Your task to perform on an android device: change your default location settings in chrome Image 0: 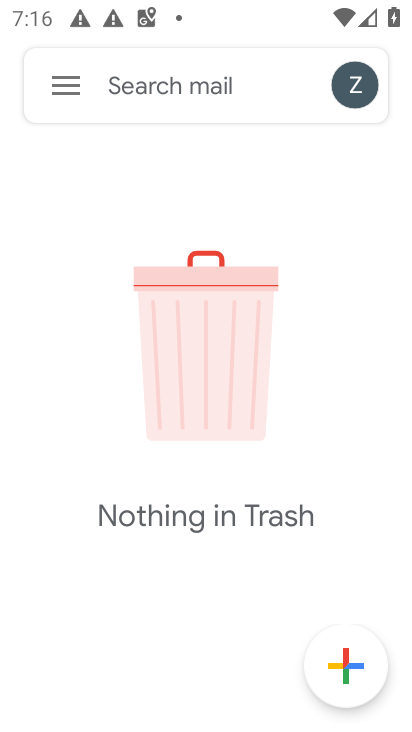
Step 0: press home button
Your task to perform on an android device: change your default location settings in chrome Image 1: 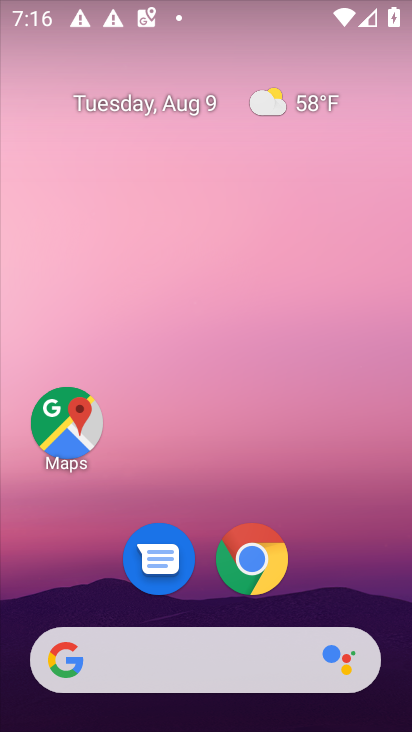
Step 1: click (249, 564)
Your task to perform on an android device: change your default location settings in chrome Image 2: 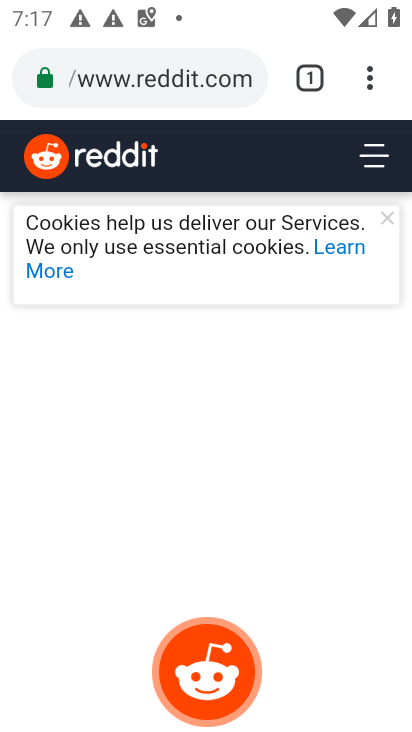
Step 2: click (370, 77)
Your task to perform on an android device: change your default location settings in chrome Image 3: 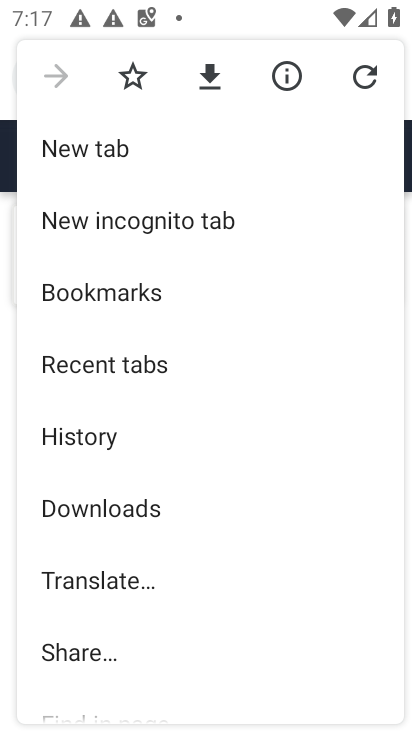
Step 3: drag from (136, 596) to (136, 254)
Your task to perform on an android device: change your default location settings in chrome Image 4: 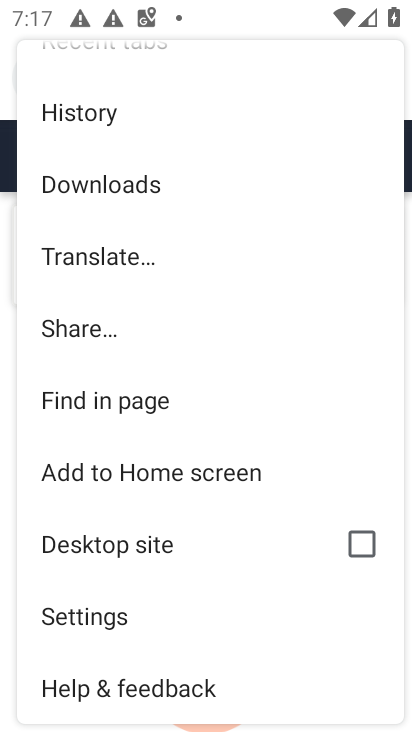
Step 4: click (82, 616)
Your task to perform on an android device: change your default location settings in chrome Image 5: 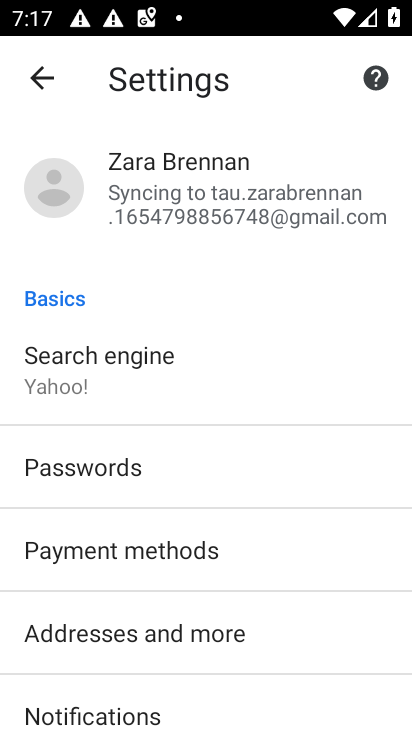
Step 5: drag from (165, 427) to (165, 165)
Your task to perform on an android device: change your default location settings in chrome Image 6: 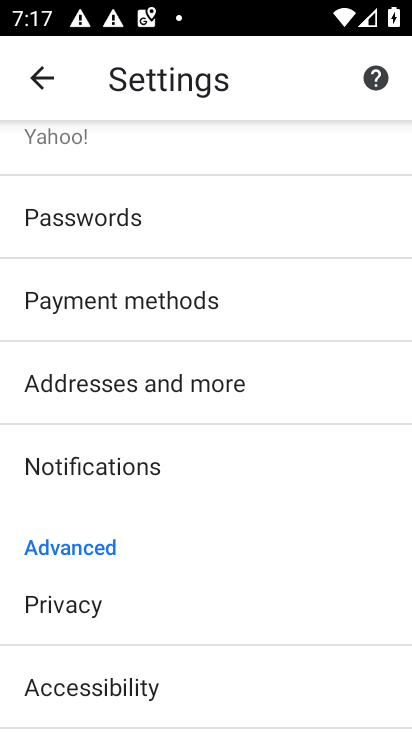
Step 6: drag from (176, 509) to (185, 272)
Your task to perform on an android device: change your default location settings in chrome Image 7: 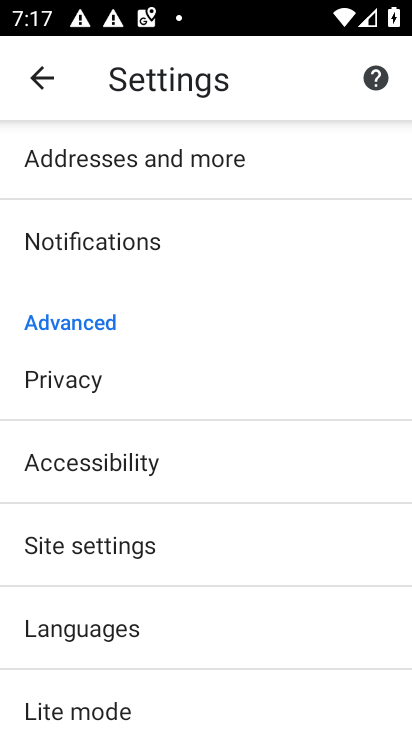
Step 7: click (96, 547)
Your task to perform on an android device: change your default location settings in chrome Image 8: 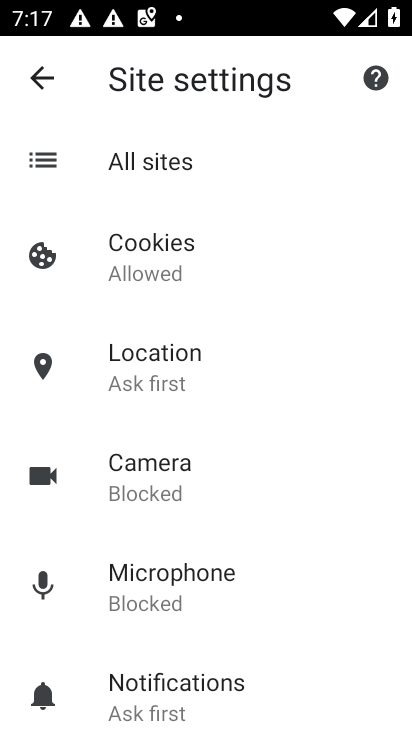
Step 8: click (171, 375)
Your task to perform on an android device: change your default location settings in chrome Image 9: 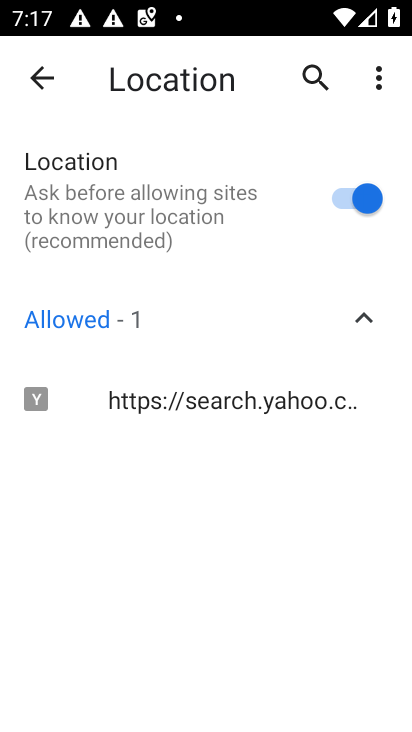
Step 9: click (339, 191)
Your task to perform on an android device: change your default location settings in chrome Image 10: 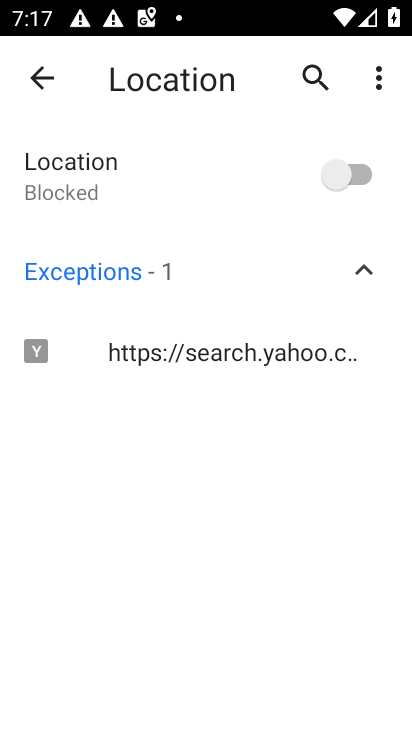
Step 10: task complete